Your task to perform on an android device: find snoozed emails in the gmail app Image 0: 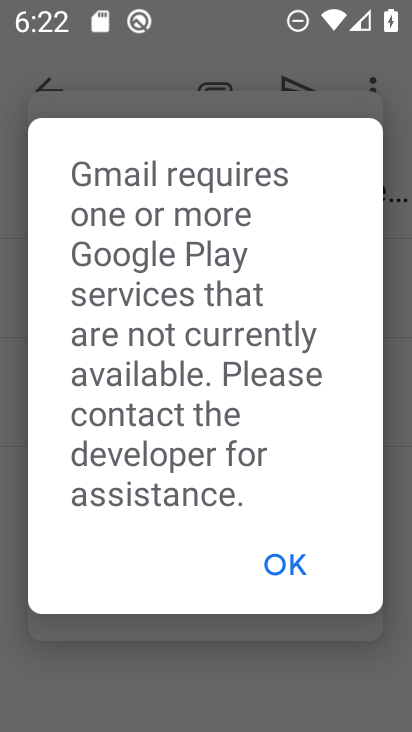
Step 0: press home button
Your task to perform on an android device: find snoozed emails in the gmail app Image 1: 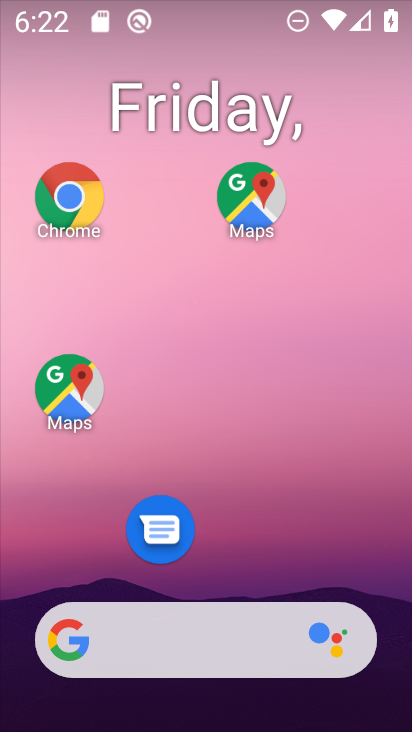
Step 1: drag from (268, 583) to (298, 156)
Your task to perform on an android device: find snoozed emails in the gmail app Image 2: 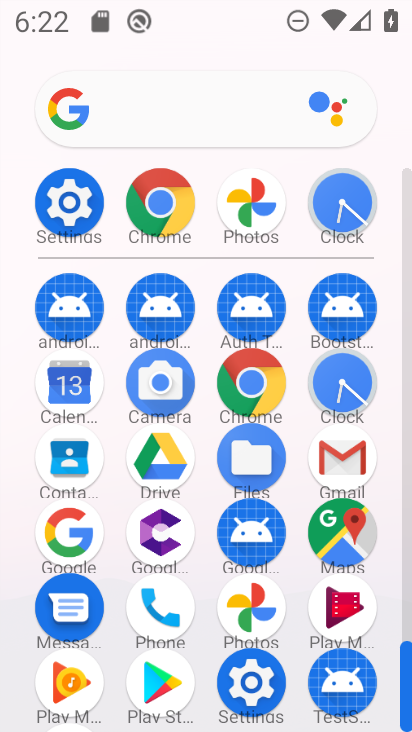
Step 2: click (349, 467)
Your task to perform on an android device: find snoozed emails in the gmail app Image 3: 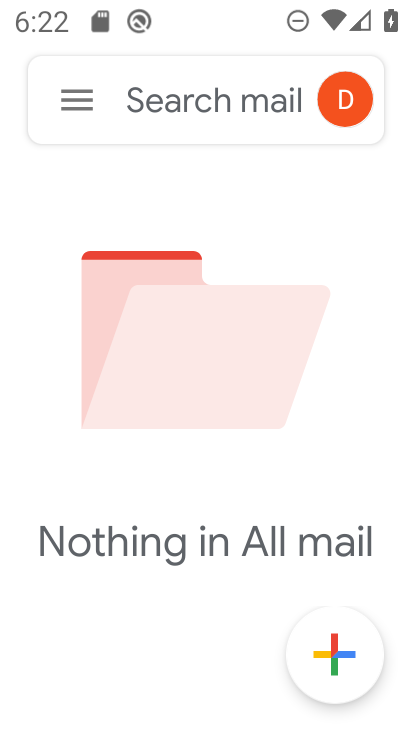
Step 3: click (88, 101)
Your task to perform on an android device: find snoozed emails in the gmail app Image 4: 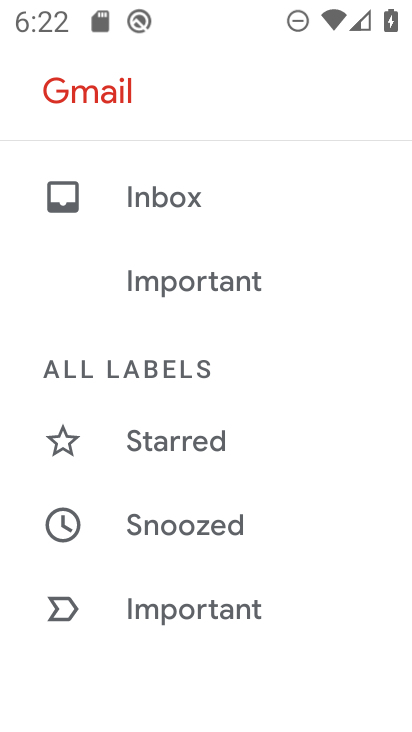
Step 4: click (197, 535)
Your task to perform on an android device: find snoozed emails in the gmail app Image 5: 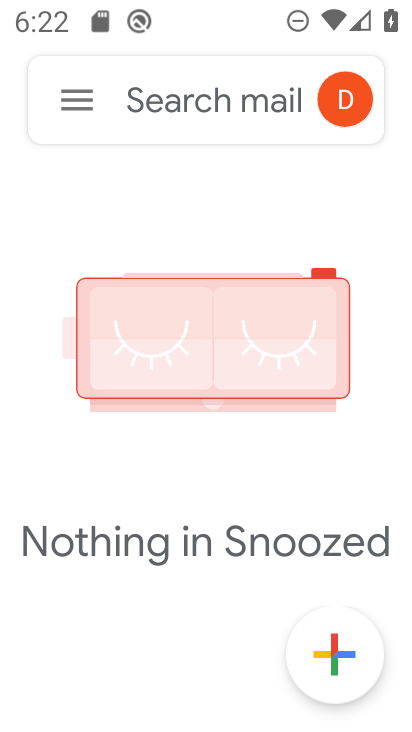
Step 5: task complete